Your task to perform on an android device: open device folders in google photos Image 0: 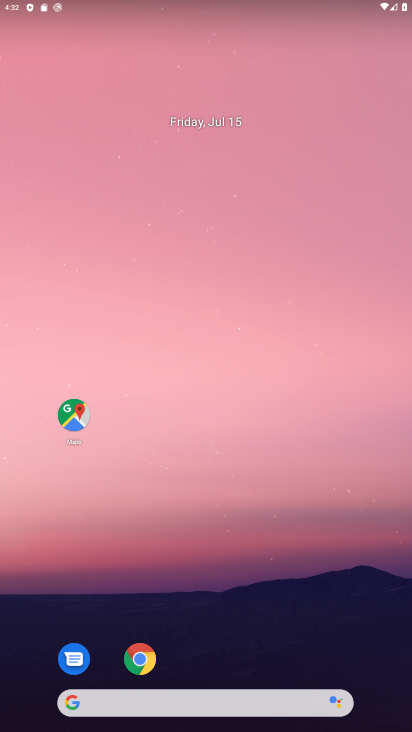
Step 0: drag from (159, 583) to (171, 98)
Your task to perform on an android device: open device folders in google photos Image 1: 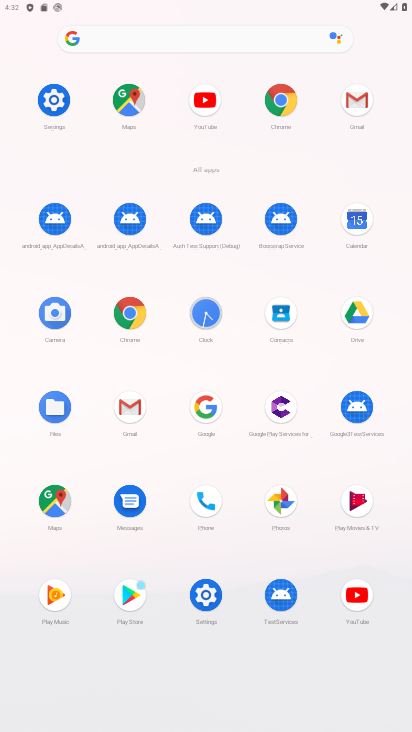
Step 1: click (278, 501)
Your task to perform on an android device: open device folders in google photos Image 2: 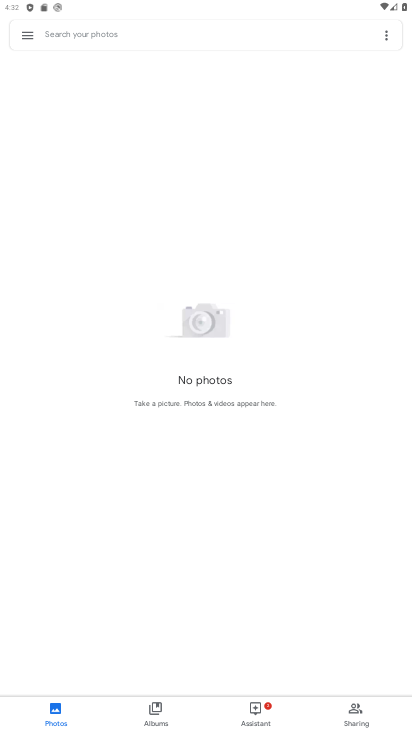
Step 2: click (31, 45)
Your task to perform on an android device: open device folders in google photos Image 3: 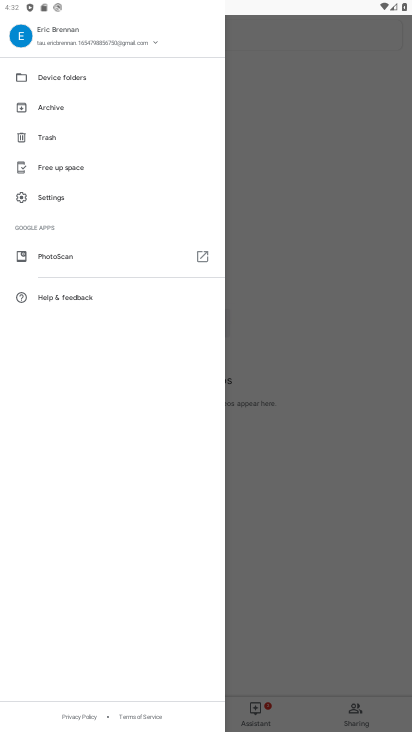
Step 3: click (74, 78)
Your task to perform on an android device: open device folders in google photos Image 4: 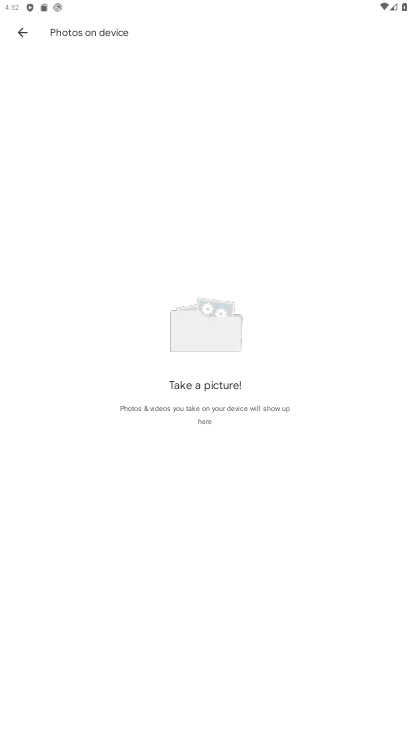
Step 4: task complete